Your task to perform on an android device: make emails show in primary in the gmail app Image 0: 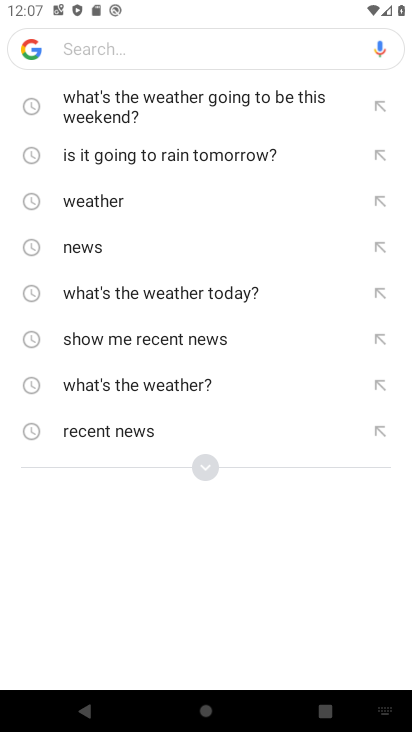
Step 0: press home button
Your task to perform on an android device: make emails show in primary in the gmail app Image 1: 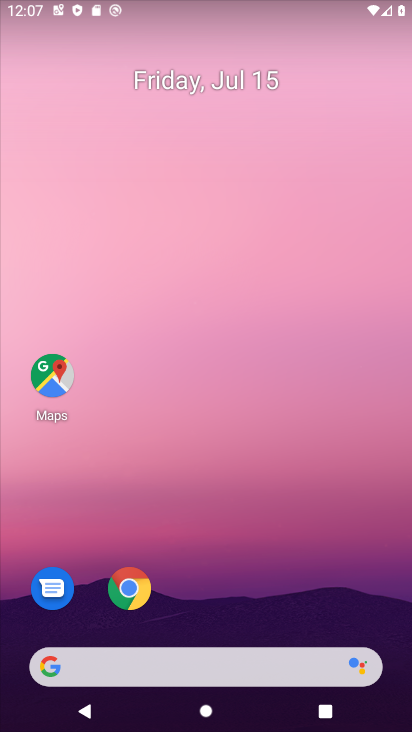
Step 1: drag from (255, 690) to (249, 305)
Your task to perform on an android device: make emails show in primary in the gmail app Image 2: 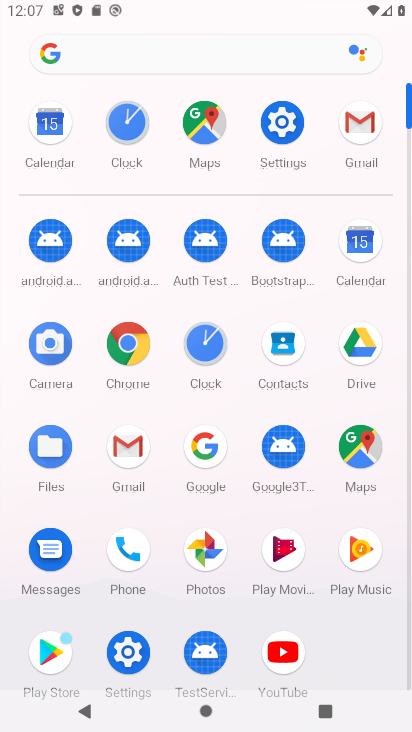
Step 2: click (349, 118)
Your task to perform on an android device: make emails show in primary in the gmail app Image 3: 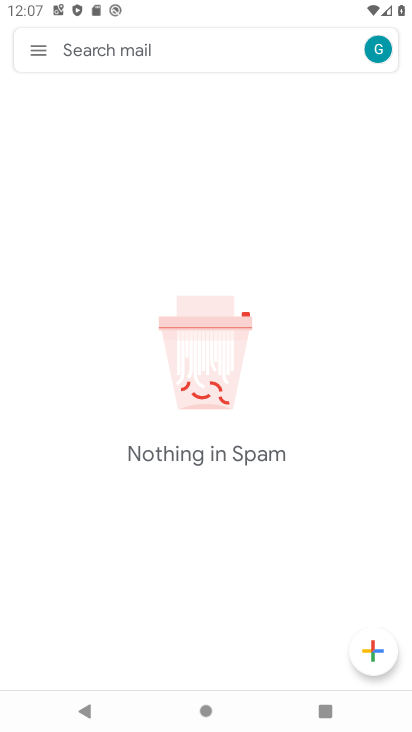
Step 3: click (41, 44)
Your task to perform on an android device: make emails show in primary in the gmail app Image 4: 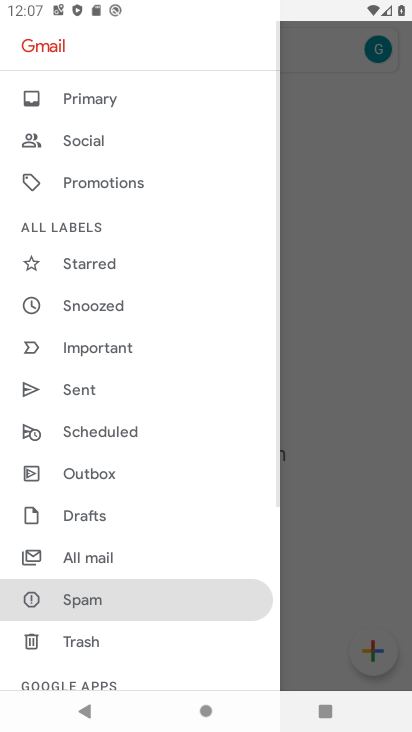
Step 4: drag from (46, 511) to (128, 17)
Your task to perform on an android device: make emails show in primary in the gmail app Image 5: 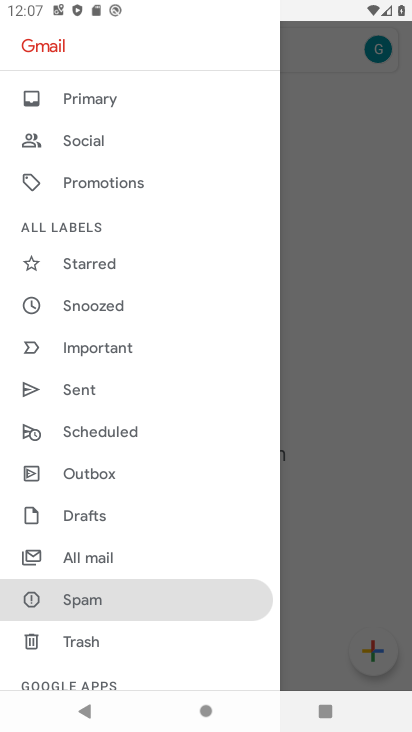
Step 5: drag from (169, 635) to (234, 174)
Your task to perform on an android device: make emails show in primary in the gmail app Image 6: 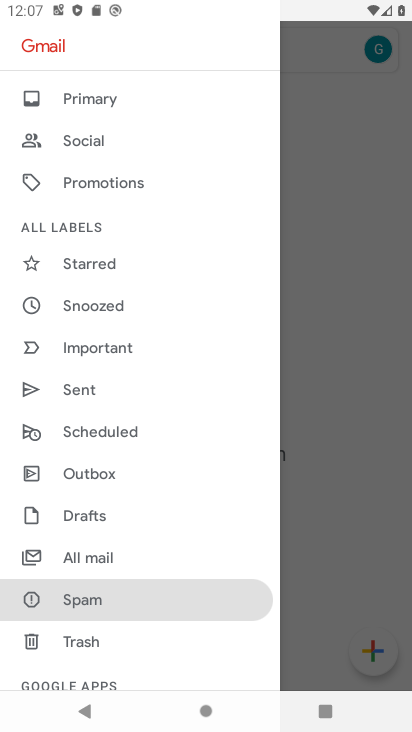
Step 6: drag from (165, 485) to (234, 189)
Your task to perform on an android device: make emails show in primary in the gmail app Image 7: 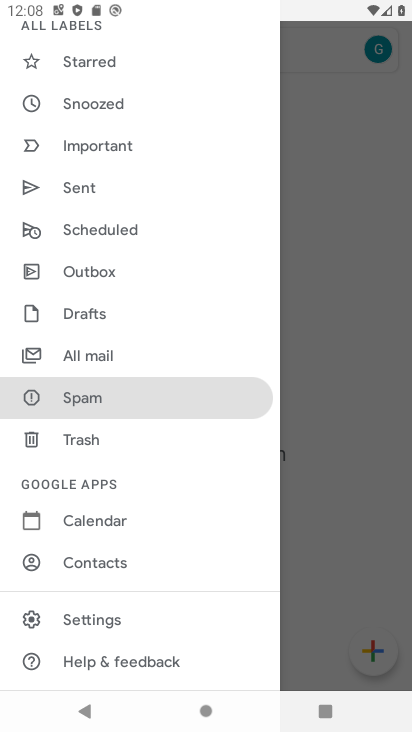
Step 7: click (137, 626)
Your task to perform on an android device: make emails show in primary in the gmail app Image 8: 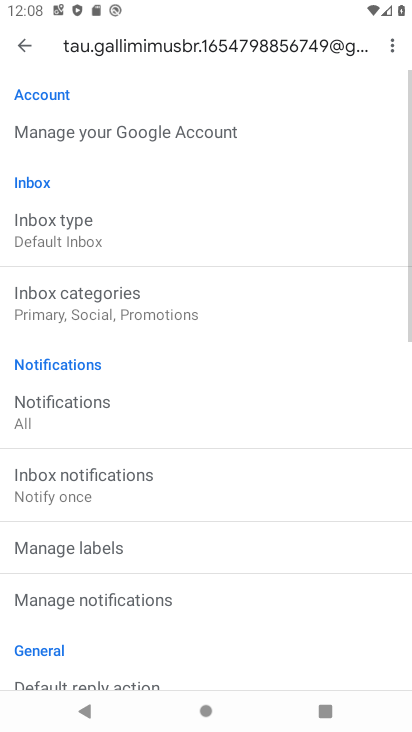
Step 8: click (80, 228)
Your task to perform on an android device: make emails show in primary in the gmail app Image 9: 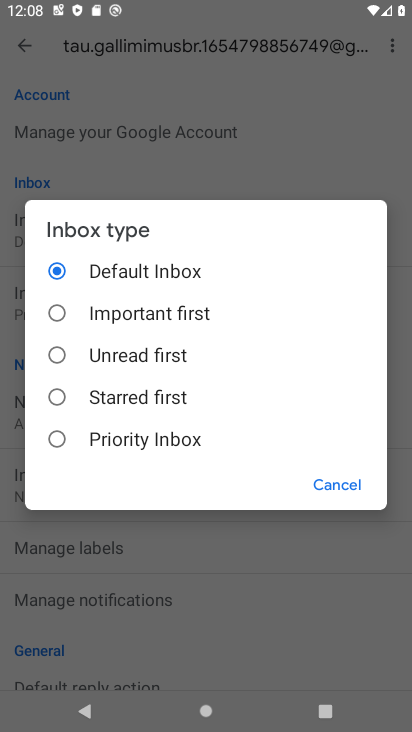
Step 9: click (136, 440)
Your task to perform on an android device: make emails show in primary in the gmail app Image 10: 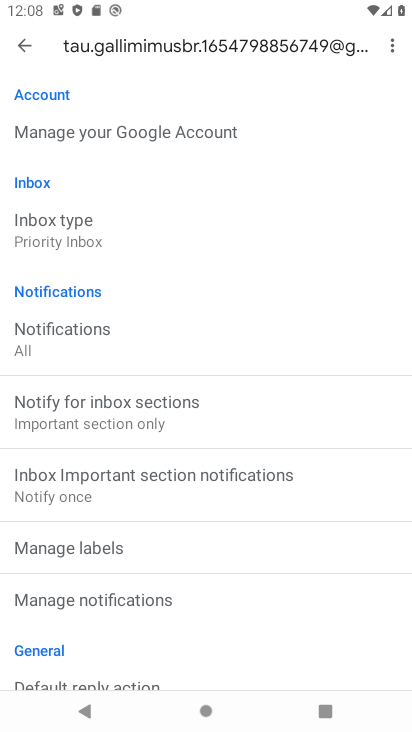
Step 10: click (82, 235)
Your task to perform on an android device: make emails show in primary in the gmail app Image 11: 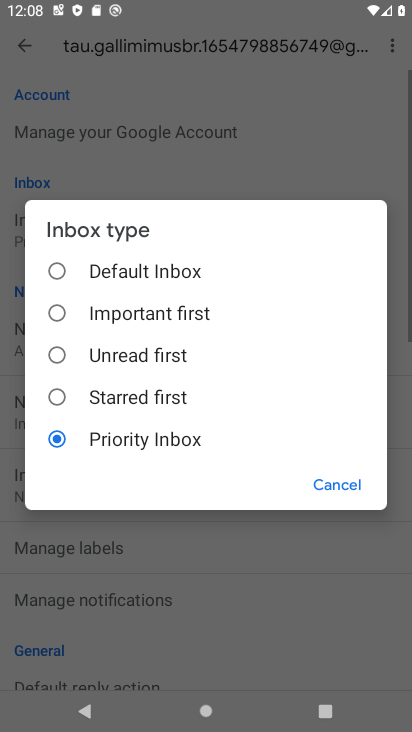
Step 11: click (150, 267)
Your task to perform on an android device: make emails show in primary in the gmail app Image 12: 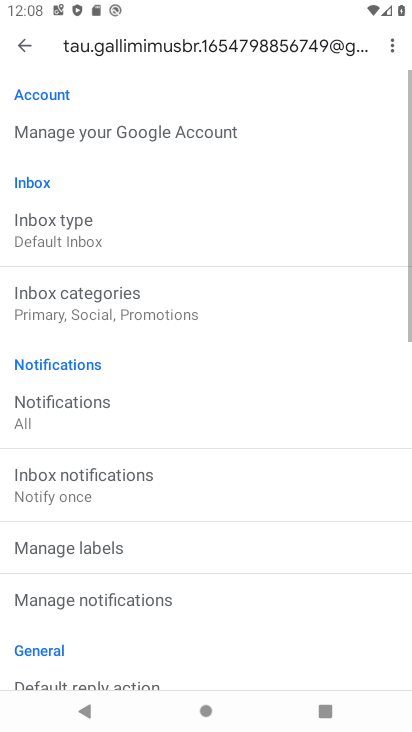
Step 12: click (130, 311)
Your task to perform on an android device: make emails show in primary in the gmail app Image 13: 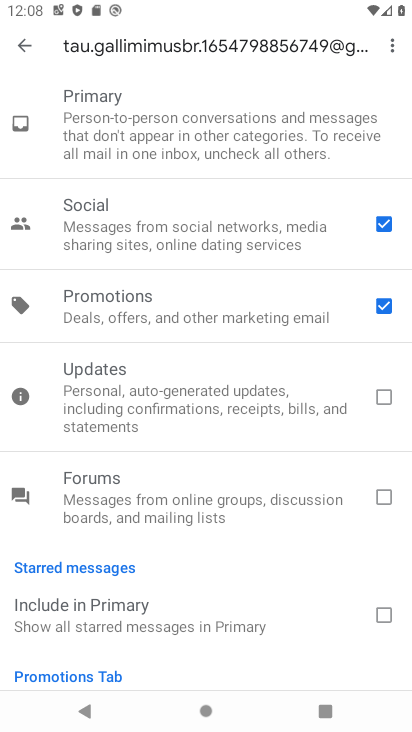
Step 13: click (376, 222)
Your task to perform on an android device: make emails show in primary in the gmail app Image 14: 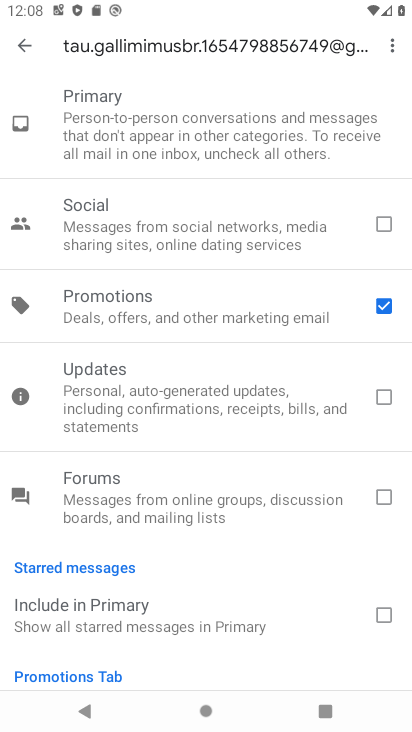
Step 14: click (387, 310)
Your task to perform on an android device: make emails show in primary in the gmail app Image 15: 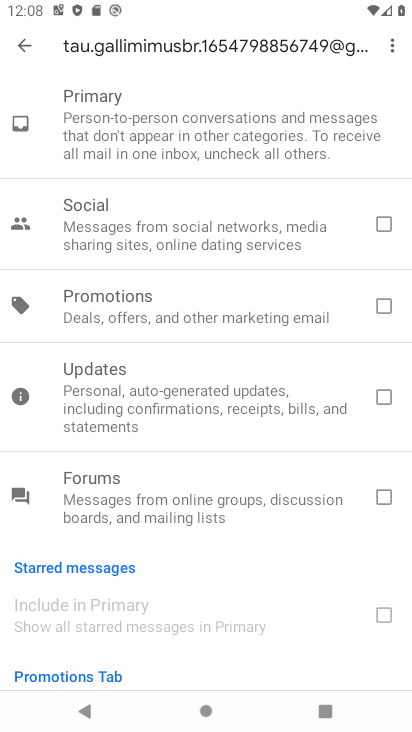
Step 15: task complete